Your task to perform on an android device: toggle translation in the chrome app Image 0: 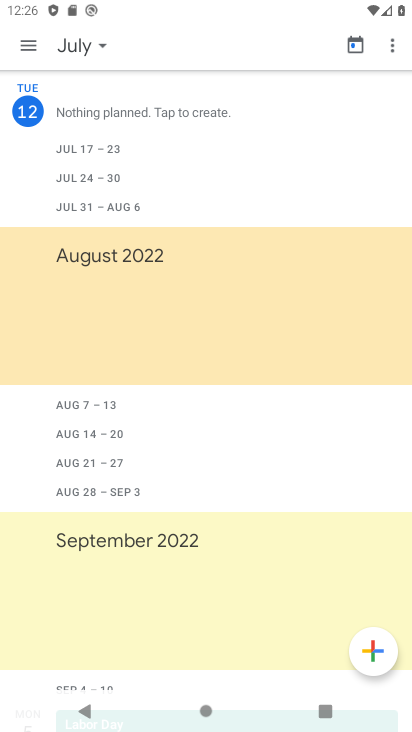
Step 0: press home button
Your task to perform on an android device: toggle translation in the chrome app Image 1: 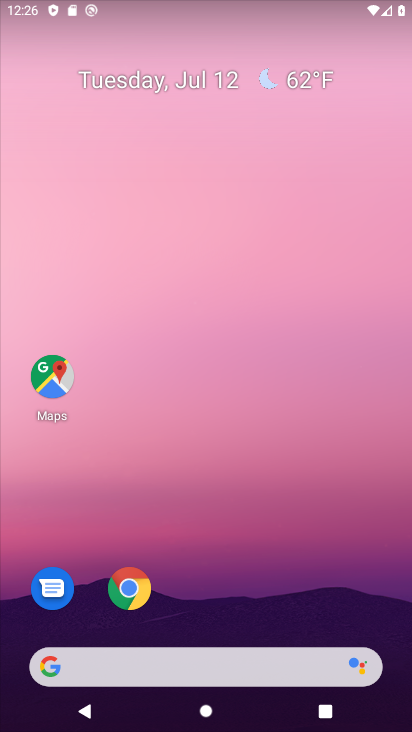
Step 1: click (146, 596)
Your task to perform on an android device: toggle translation in the chrome app Image 2: 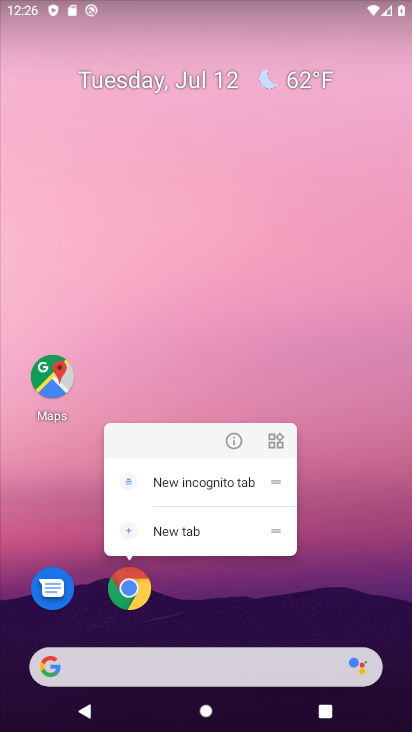
Step 2: click (146, 596)
Your task to perform on an android device: toggle translation in the chrome app Image 3: 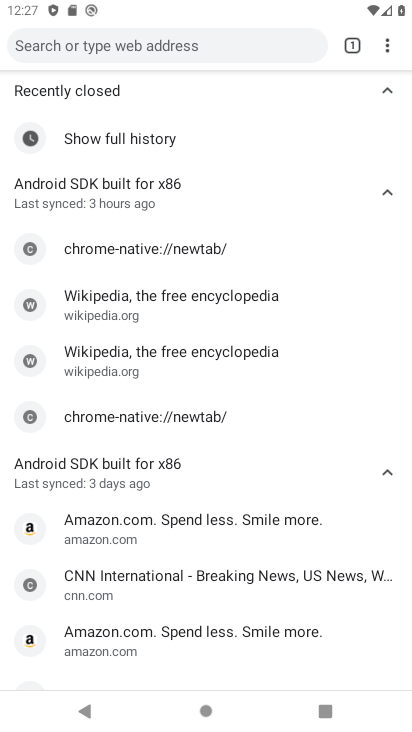
Step 3: click (385, 45)
Your task to perform on an android device: toggle translation in the chrome app Image 4: 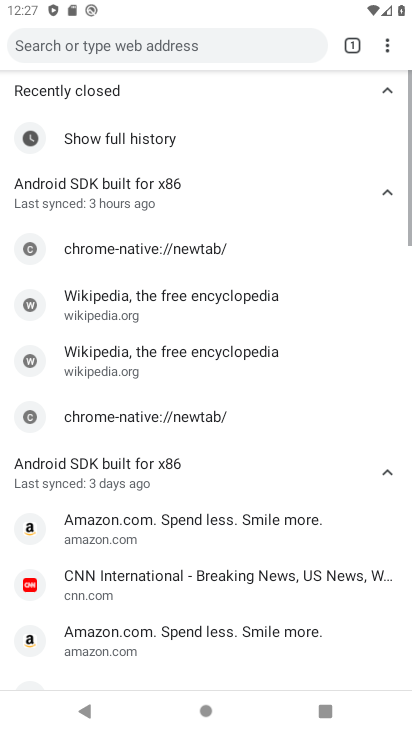
Step 4: click (385, 43)
Your task to perform on an android device: toggle translation in the chrome app Image 5: 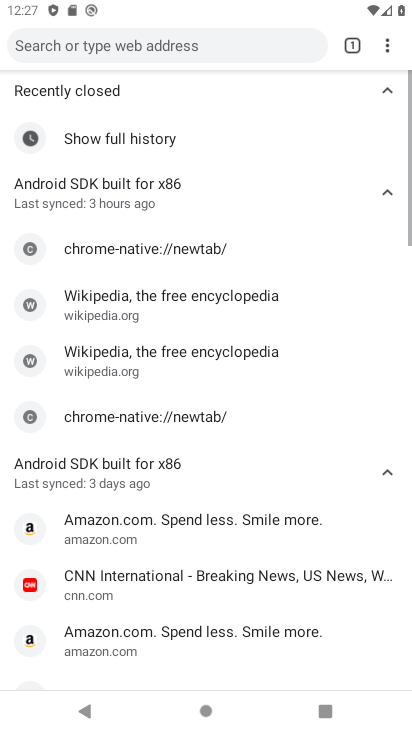
Step 5: click (385, 43)
Your task to perform on an android device: toggle translation in the chrome app Image 6: 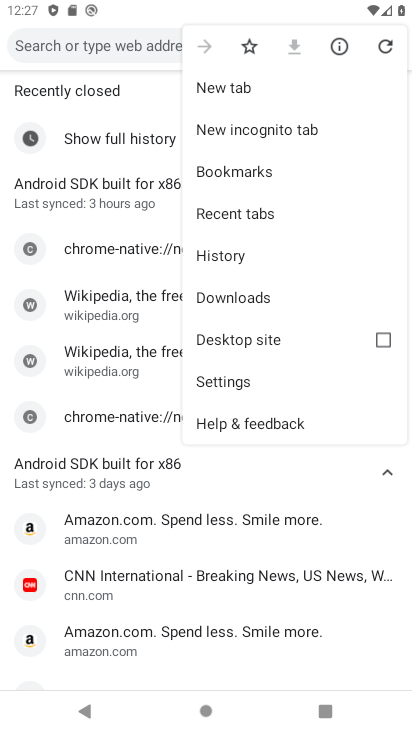
Step 6: click (222, 378)
Your task to perform on an android device: toggle translation in the chrome app Image 7: 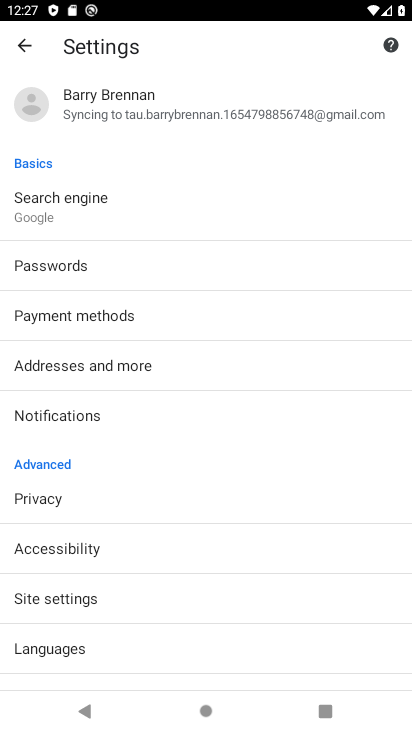
Step 7: drag from (141, 607) to (104, 7)
Your task to perform on an android device: toggle translation in the chrome app Image 8: 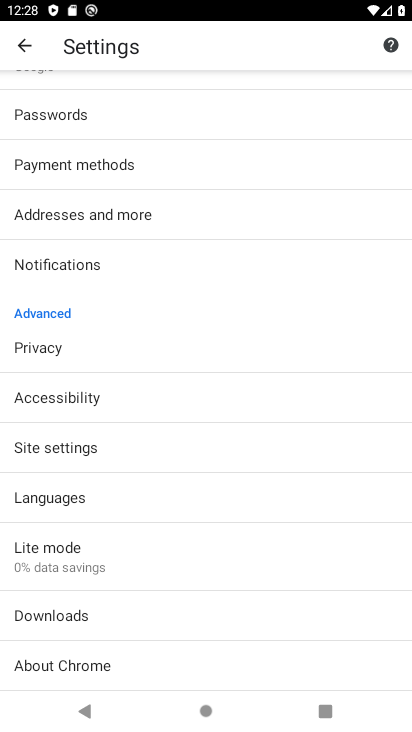
Step 8: click (92, 504)
Your task to perform on an android device: toggle translation in the chrome app Image 9: 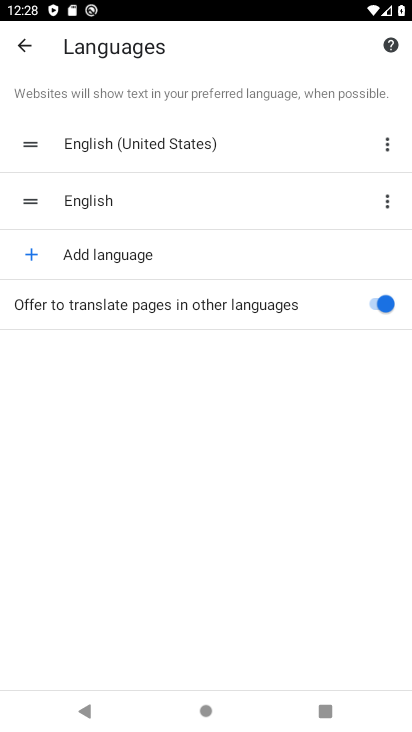
Step 9: click (387, 301)
Your task to perform on an android device: toggle translation in the chrome app Image 10: 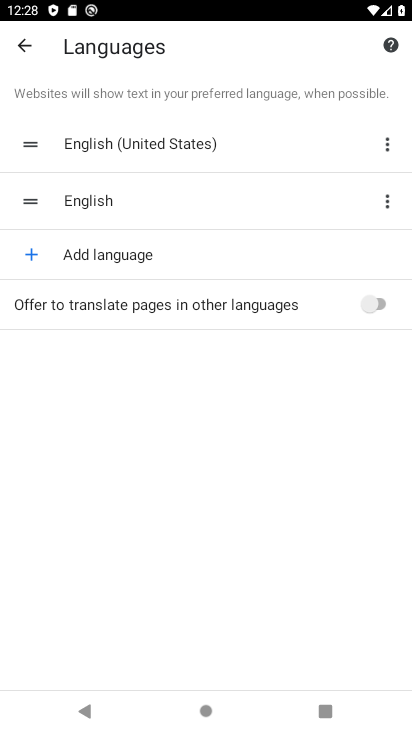
Step 10: task complete